Your task to perform on an android device: Check the news Image 0: 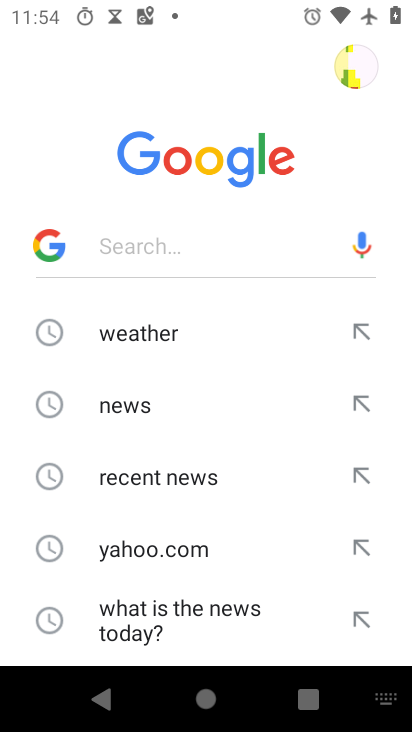
Step 0: press back button
Your task to perform on an android device: Check the news Image 1: 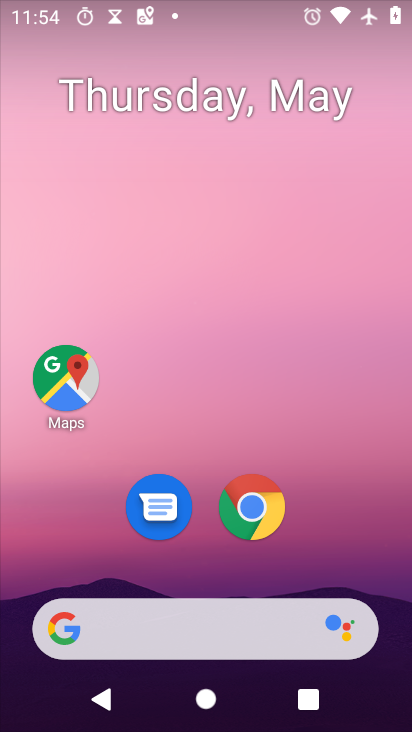
Step 1: drag from (340, 477) to (330, 47)
Your task to perform on an android device: Check the news Image 2: 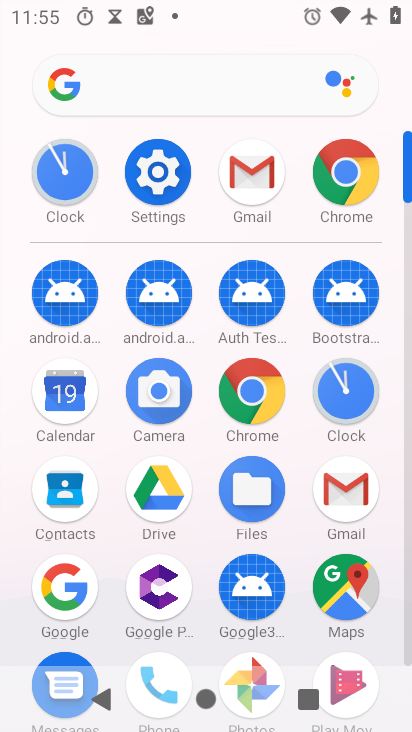
Step 2: drag from (1, 568) to (33, 192)
Your task to perform on an android device: Check the news Image 3: 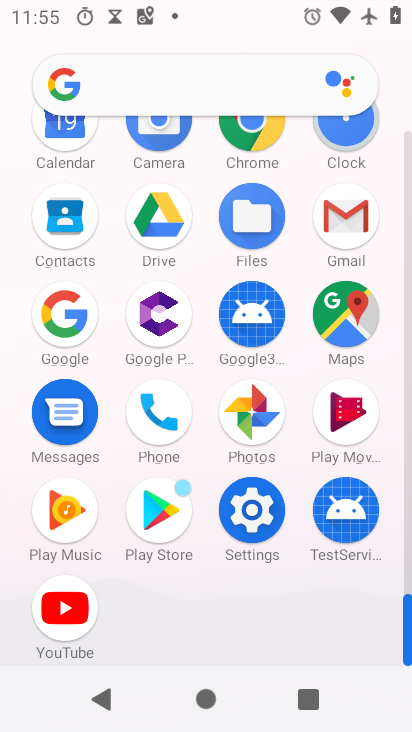
Step 3: click (250, 131)
Your task to perform on an android device: Check the news Image 4: 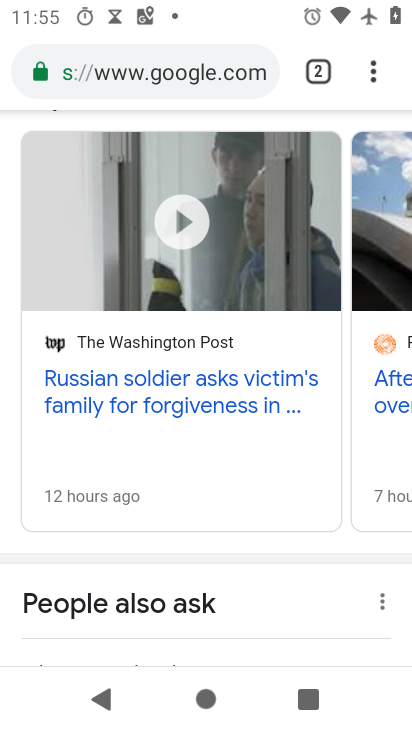
Step 4: click (155, 62)
Your task to perform on an android device: Check the news Image 5: 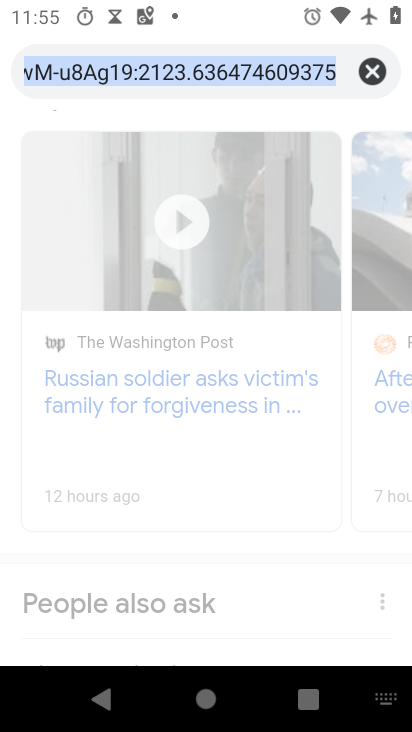
Step 5: click (371, 72)
Your task to perform on an android device: Check the news Image 6: 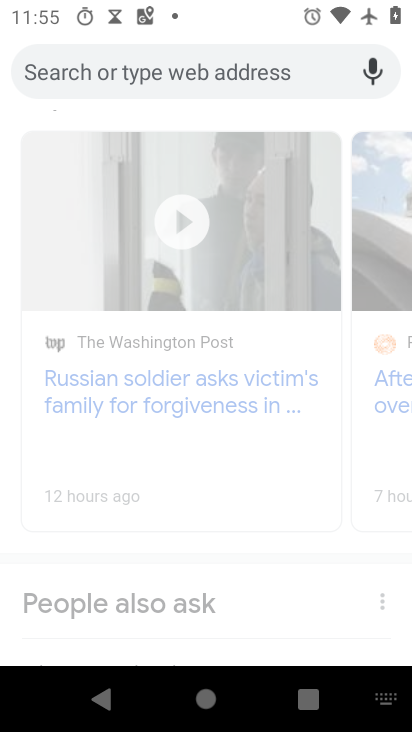
Step 6: type "Check the news"
Your task to perform on an android device: Check the news Image 7: 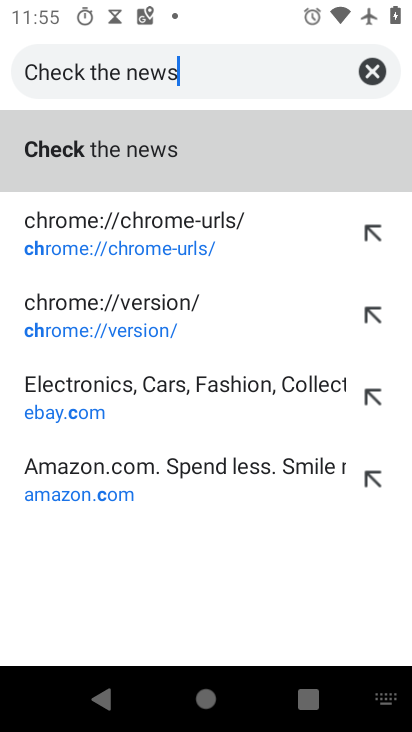
Step 7: type ""
Your task to perform on an android device: Check the news Image 8: 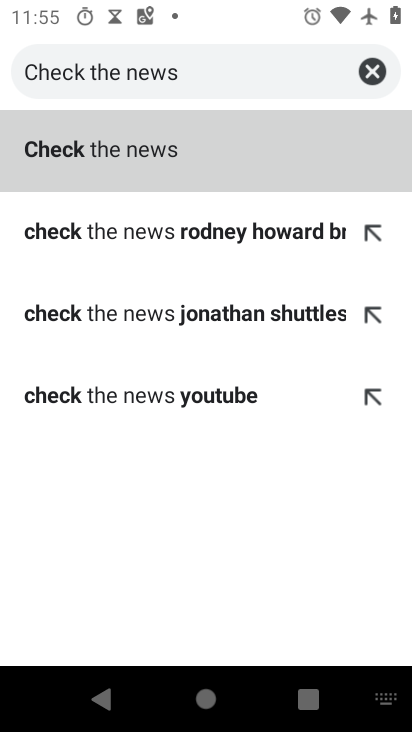
Step 8: click (98, 158)
Your task to perform on an android device: Check the news Image 9: 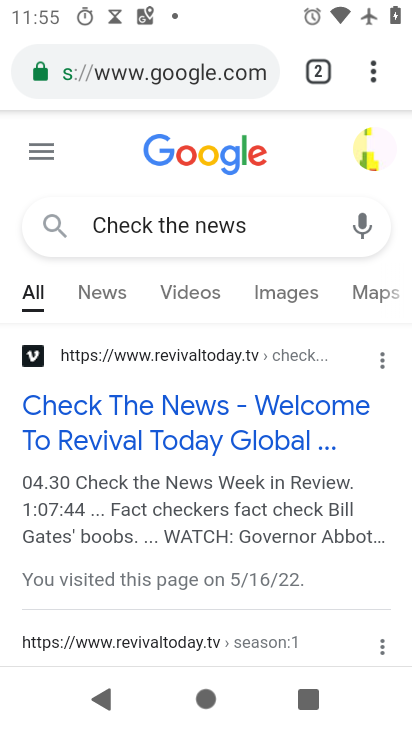
Step 9: click (102, 144)
Your task to perform on an android device: Check the news Image 10: 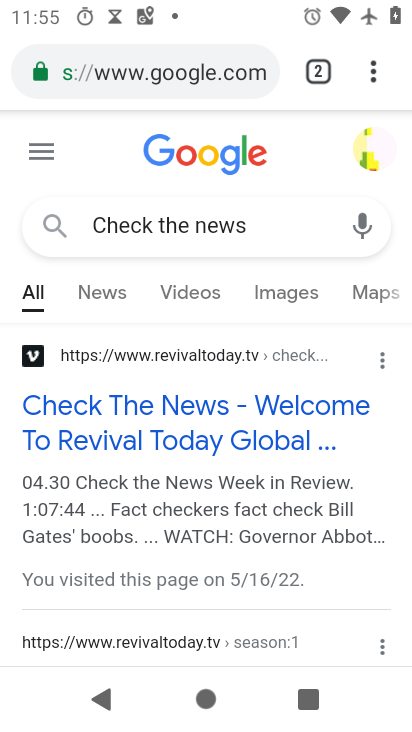
Step 10: click (91, 282)
Your task to perform on an android device: Check the news Image 11: 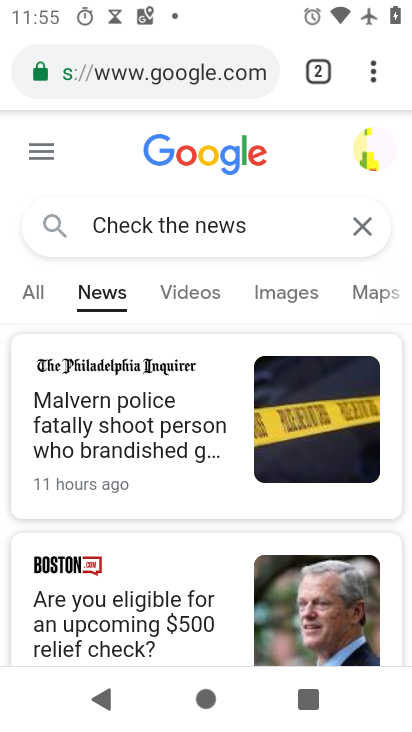
Step 11: task complete